Your task to perform on an android device: Open Reddit.com Image 0: 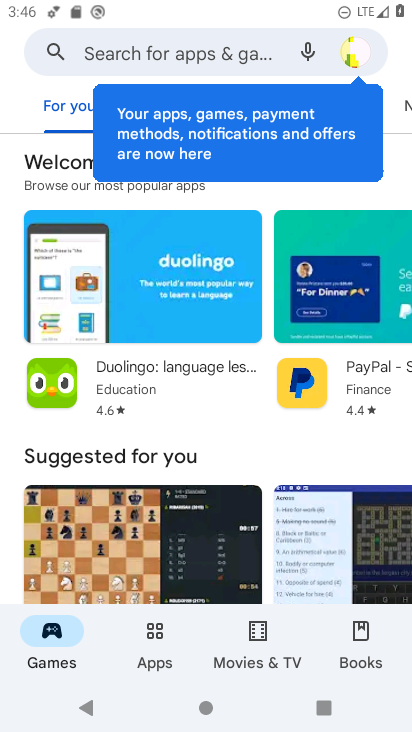
Step 0: press home button
Your task to perform on an android device: Open Reddit.com Image 1: 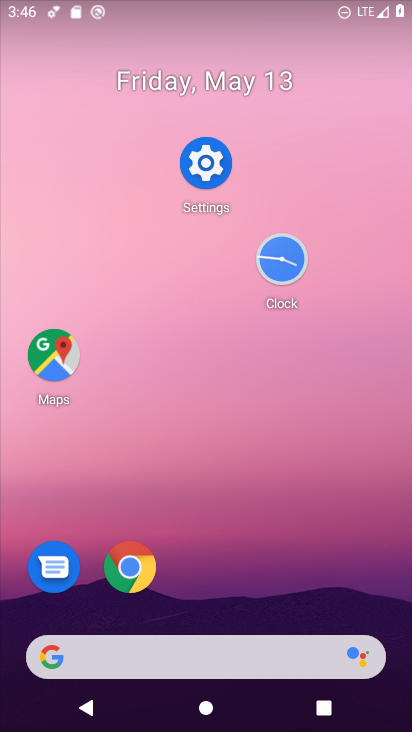
Step 1: click (204, 201)
Your task to perform on an android device: Open Reddit.com Image 2: 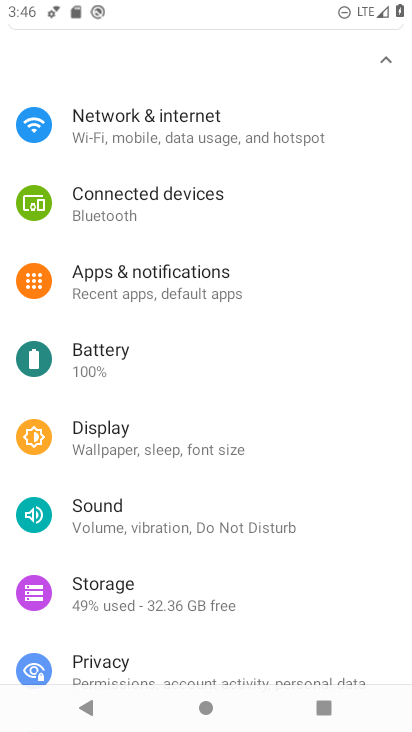
Step 2: press home button
Your task to perform on an android device: Open Reddit.com Image 3: 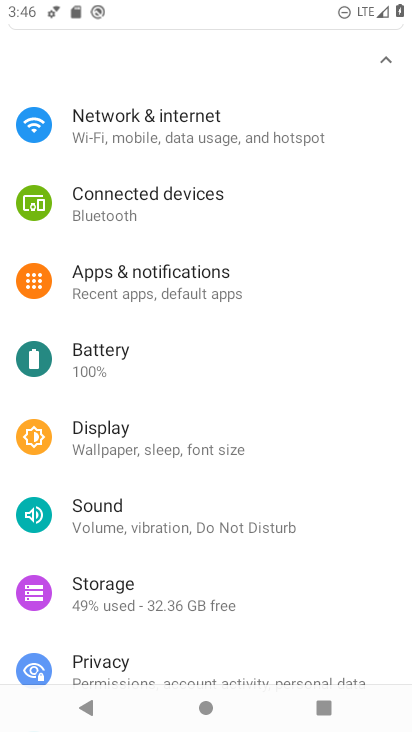
Step 3: press home button
Your task to perform on an android device: Open Reddit.com Image 4: 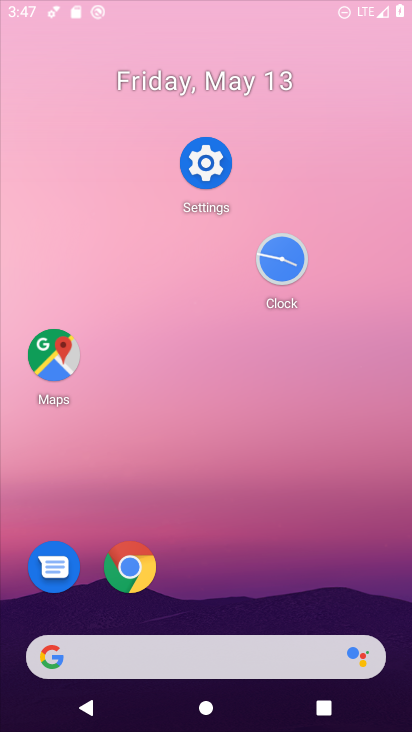
Step 4: press home button
Your task to perform on an android device: Open Reddit.com Image 5: 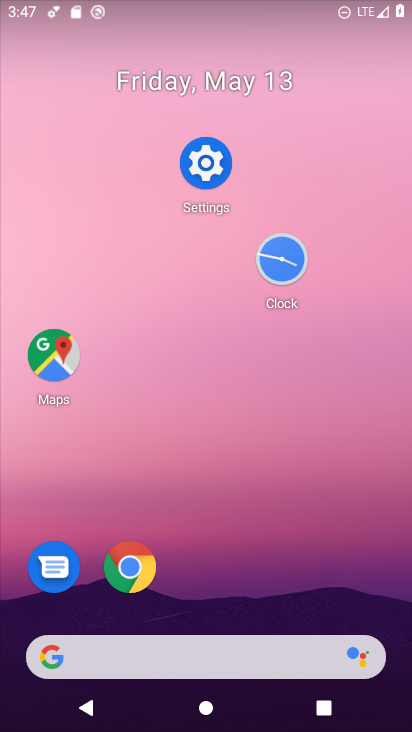
Step 5: click (144, 574)
Your task to perform on an android device: Open Reddit.com Image 6: 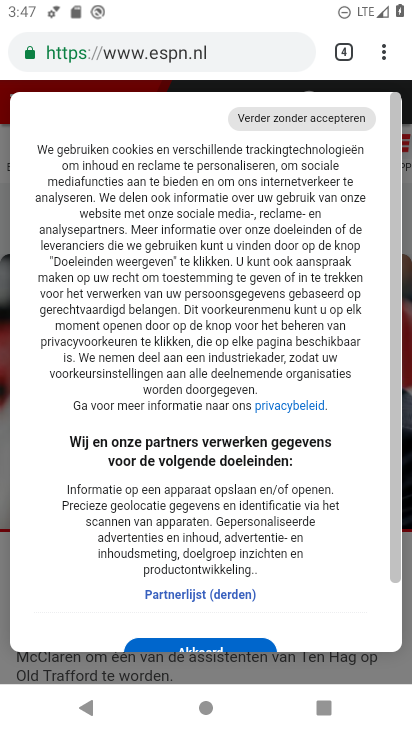
Step 6: click (387, 46)
Your task to perform on an android device: Open Reddit.com Image 7: 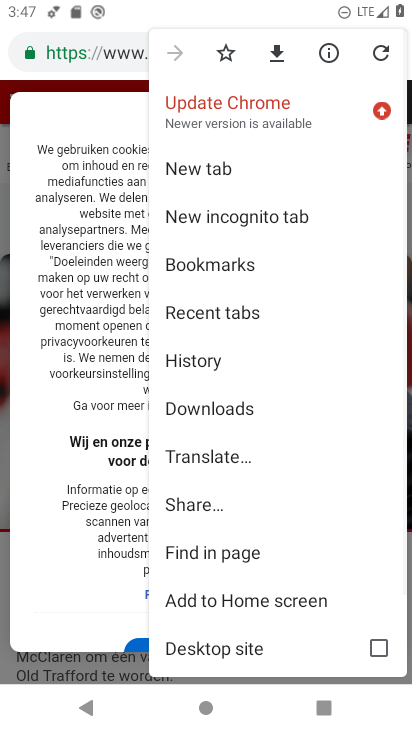
Step 7: drag from (257, 635) to (277, 415)
Your task to perform on an android device: Open Reddit.com Image 8: 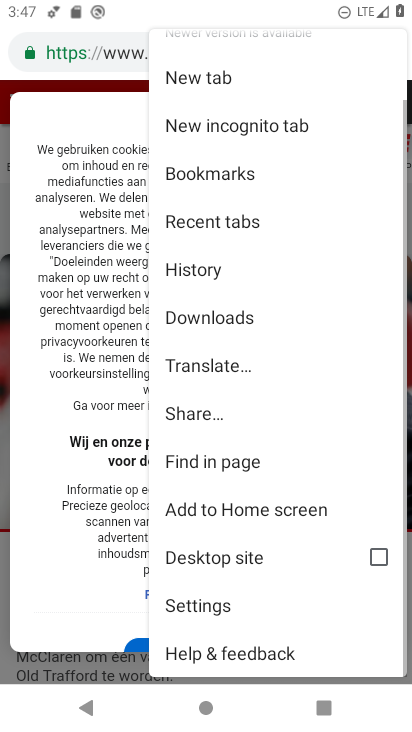
Step 8: click (271, 603)
Your task to perform on an android device: Open Reddit.com Image 9: 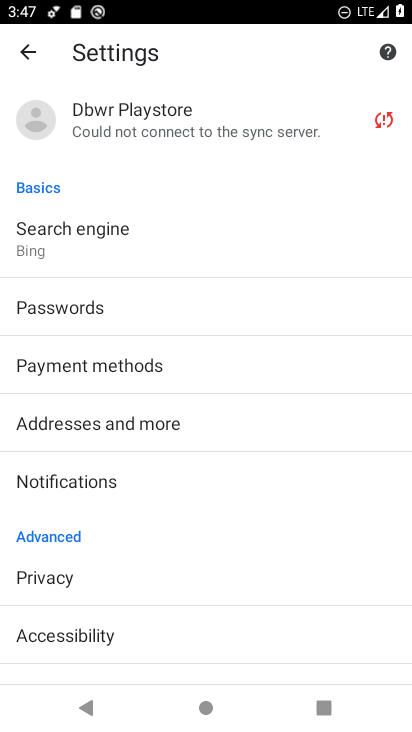
Step 9: click (14, 69)
Your task to perform on an android device: Open Reddit.com Image 10: 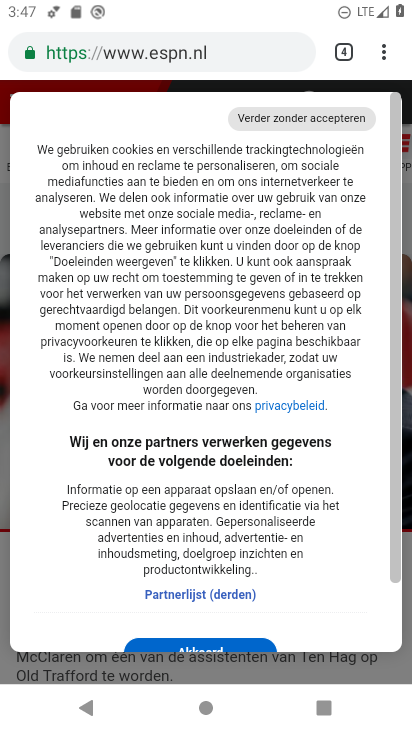
Step 10: click (210, 49)
Your task to perform on an android device: Open Reddit.com Image 11: 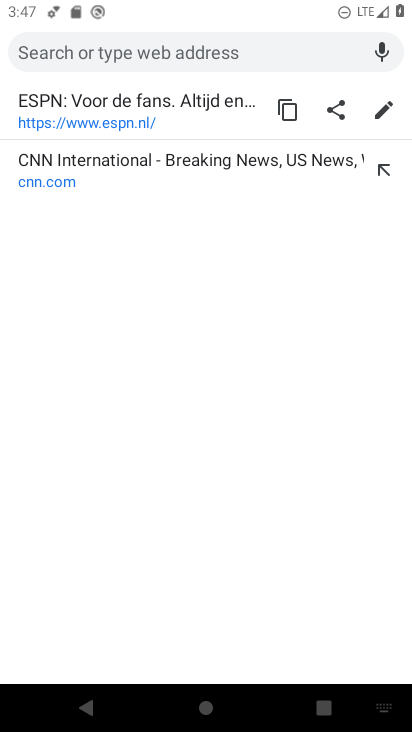
Step 11: type "reddir"
Your task to perform on an android device: Open Reddit.com Image 12: 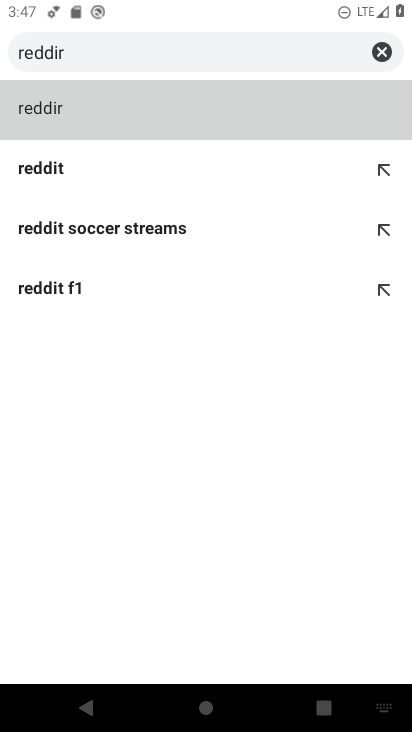
Step 12: click (105, 162)
Your task to perform on an android device: Open Reddit.com Image 13: 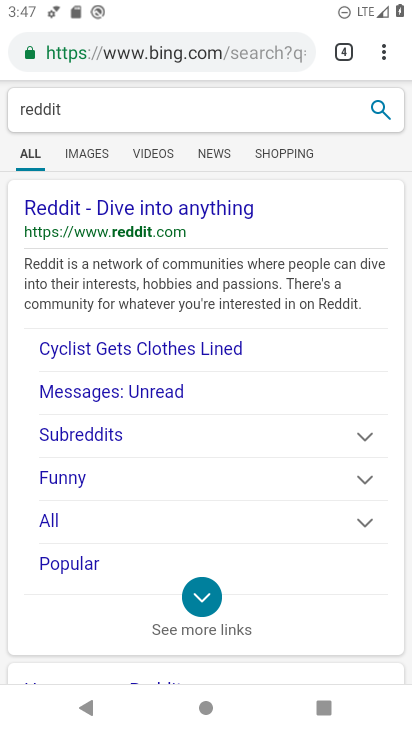
Step 13: click (170, 196)
Your task to perform on an android device: Open Reddit.com Image 14: 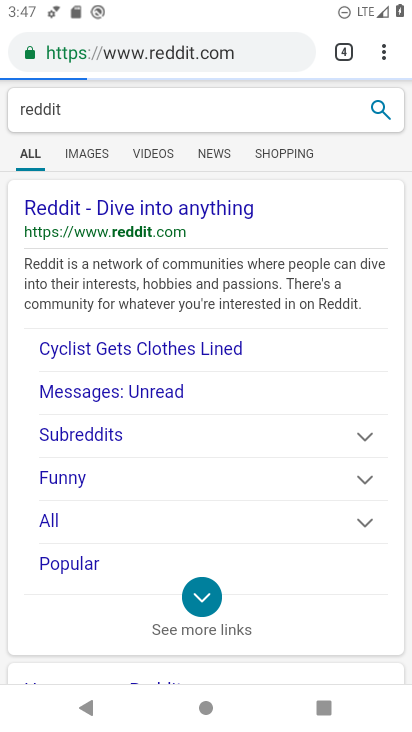
Step 14: task complete